Your task to perform on an android device: toggle translation in the chrome app Image 0: 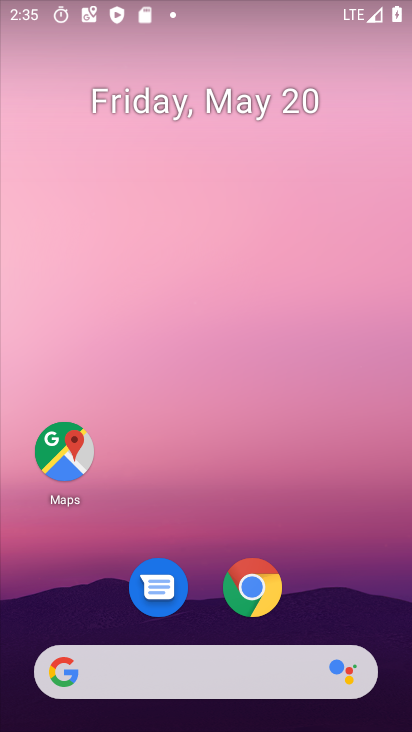
Step 0: click (252, 589)
Your task to perform on an android device: toggle translation in the chrome app Image 1: 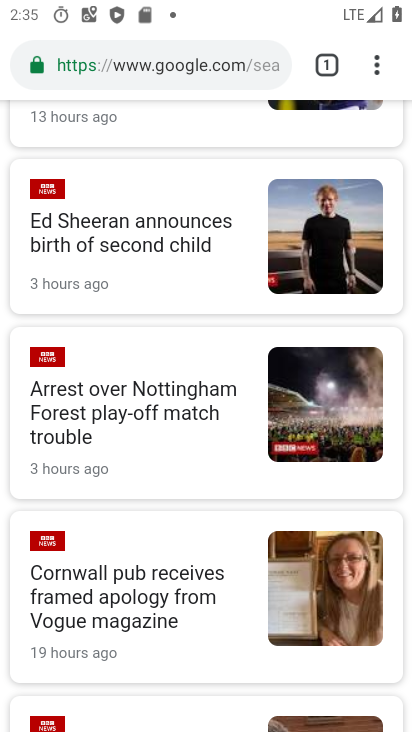
Step 1: drag from (377, 75) to (202, 641)
Your task to perform on an android device: toggle translation in the chrome app Image 2: 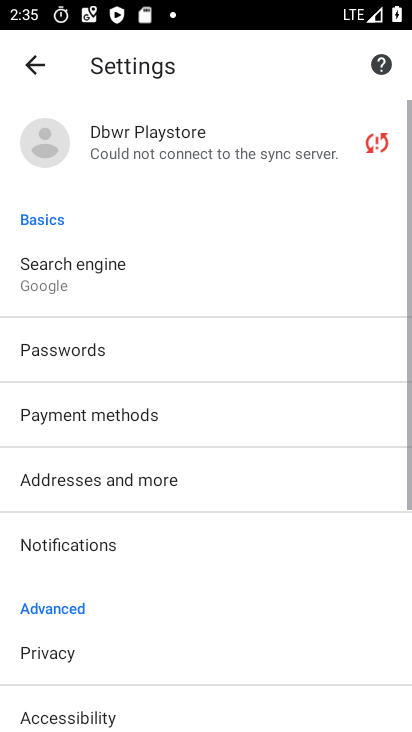
Step 2: drag from (201, 638) to (226, 177)
Your task to perform on an android device: toggle translation in the chrome app Image 3: 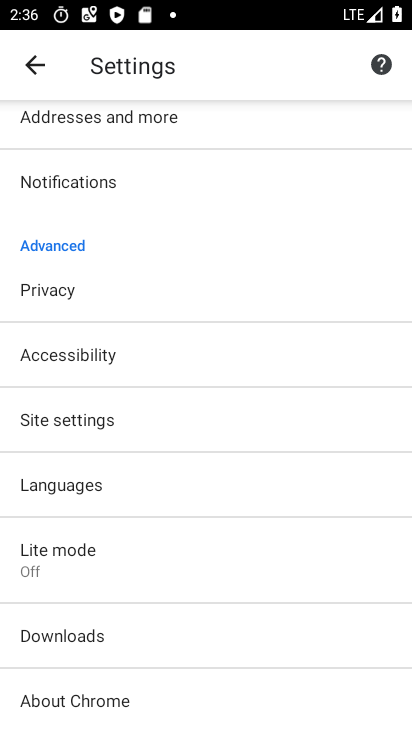
Step 3: click (91, 490)
Your task to perform on an android device: toggle translation in the chrome app Image 4: 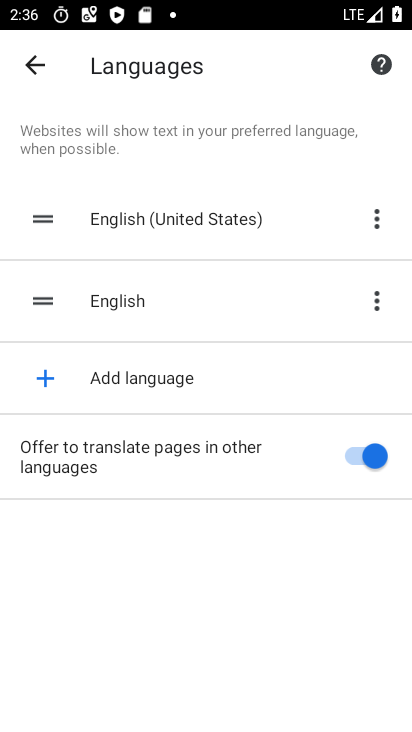
Step 4: click (355, 469)
Your task to perform on an android device: toggle translation in the chrome app Image 5: 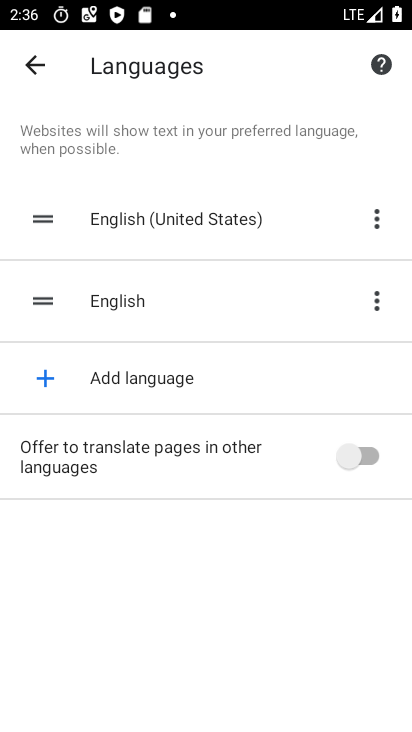
Step 5: task complete